Your task to perform on an android device: check out phone information Image 0: 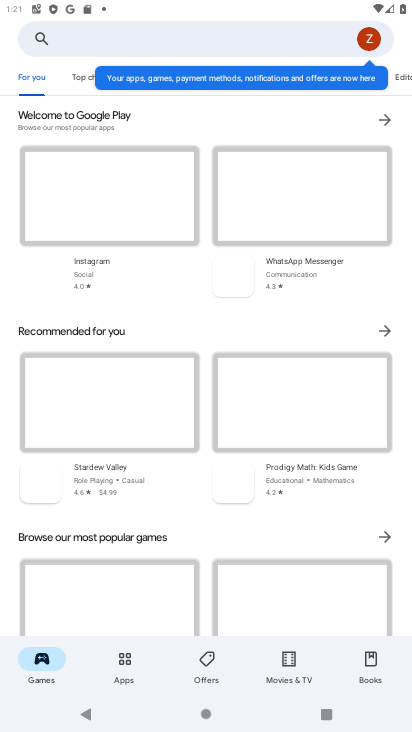
Step 0: press home button
Your task to perform on an android device: check out phone information Image 1: 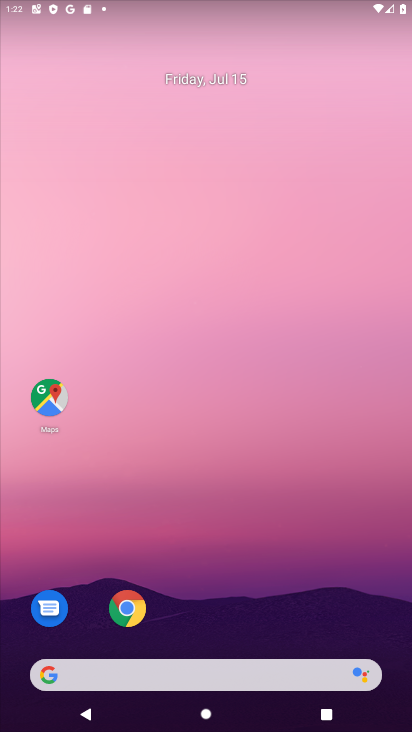
Step 1: drag from (212, 715) to (191, 6)
Your task to perform on an android device: check out phone information Image 2: 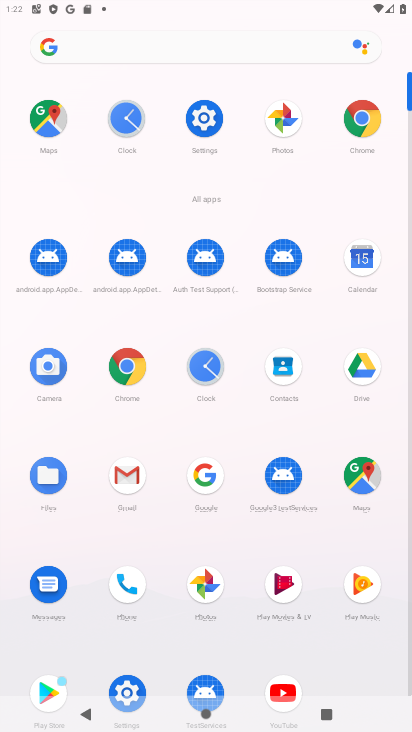
Step 2: click (201, 114)
Your task to perform on an android device: check out phone information Image 3: 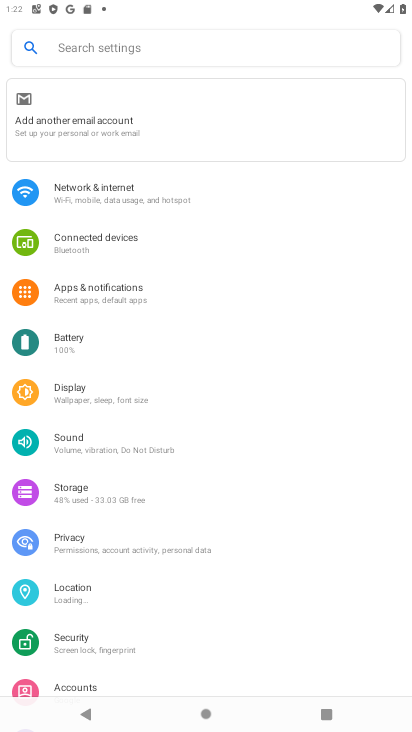
Step 3: drag from (259, 637) to (244, 5)
Your task to perform on an android device: check out phone information Image 4: 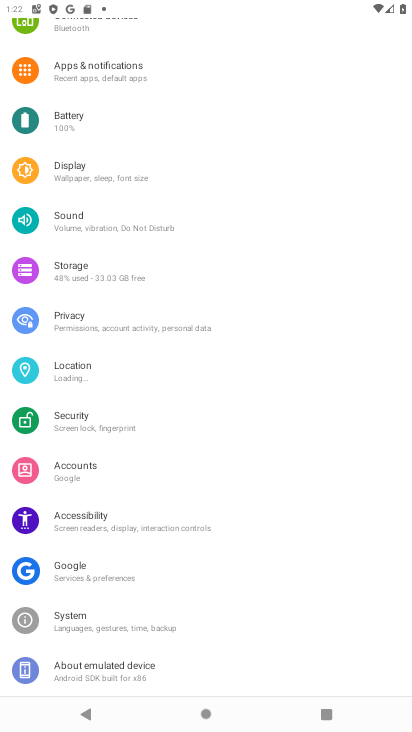
Step 4: click (171, 677)
Your task to perform on an android device: check out phone information Image 5: 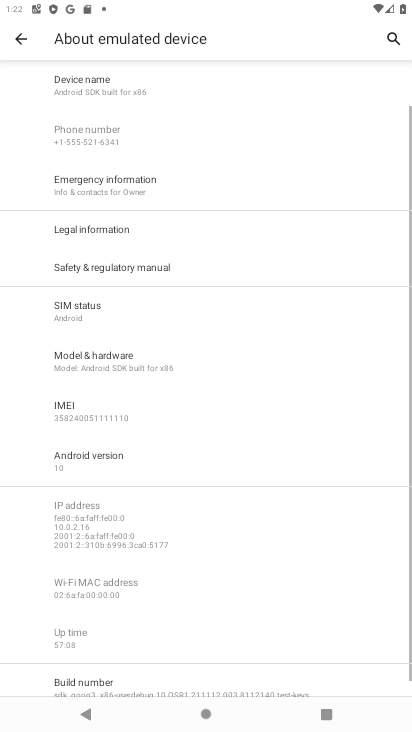
Step 5: task complete